Your task to perform on an android device: change text size in settings app Image 0: 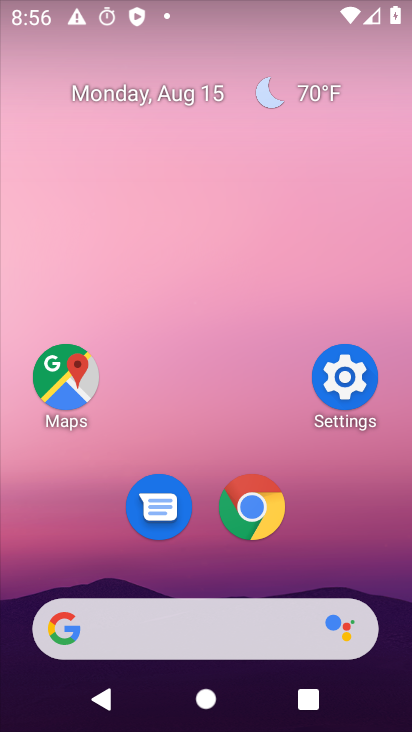
Step 0: click (356, 381)
Your task to perform on an android device: change text size in settings app Image 1: 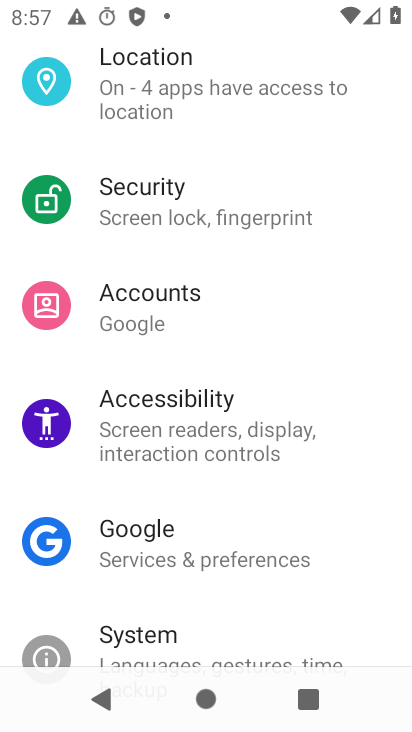
Step 1: drag from (282, 264) to (191, 636)
Your task to perform on an android device: change text size in settings app Image 2: 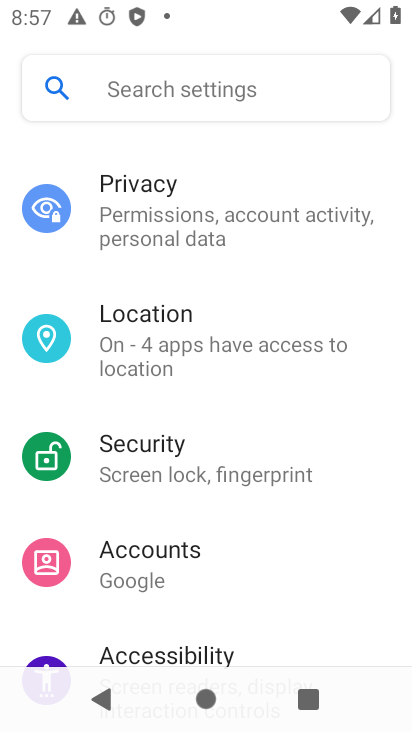
Step 2: drag from (305, 167) to (200, 630)
Your task to perform on an android device: change text size in settings app Image 3: 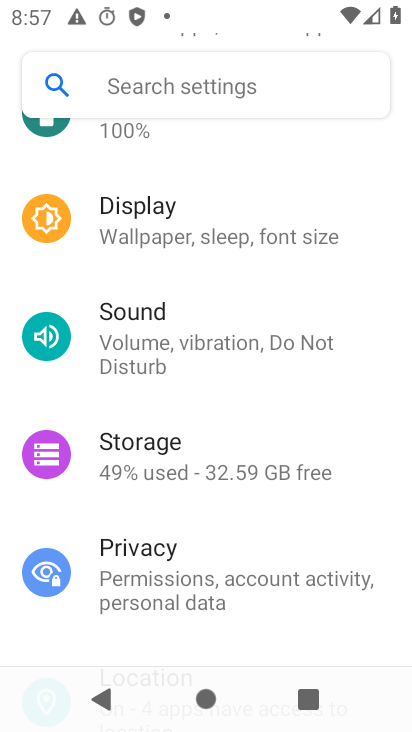
Step 3: drag from (280, 167) to (218, 561)
Your task to perform on an android device: change text size in settings app Image 4: 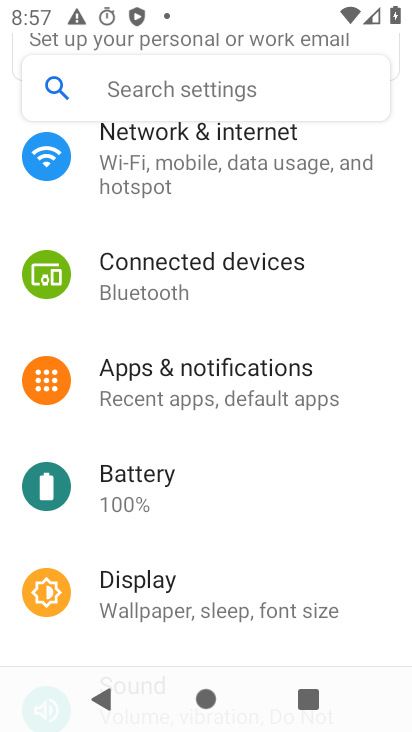
Step 4: click (209, 596)
Your task to perform on an android device: change text size in settings app Image 5: 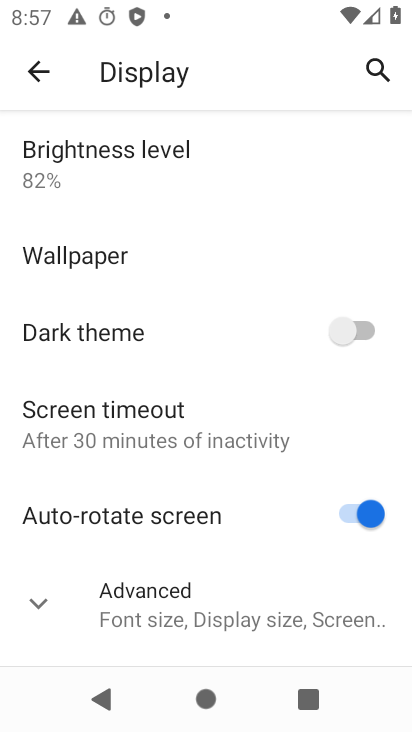
Step 5: drag from (247, 563) to (304, 105)
Your task to perform on an android device: change text size in settings app Image 6: 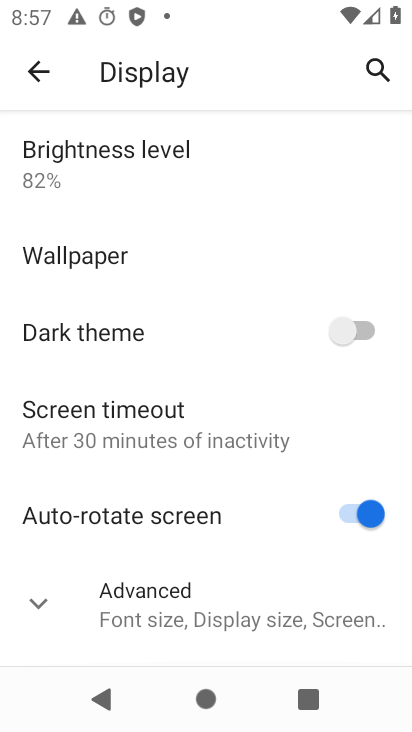
Step 6: click (165, 614)
Your task to perform on an android device: change text size in settings app Image 7: 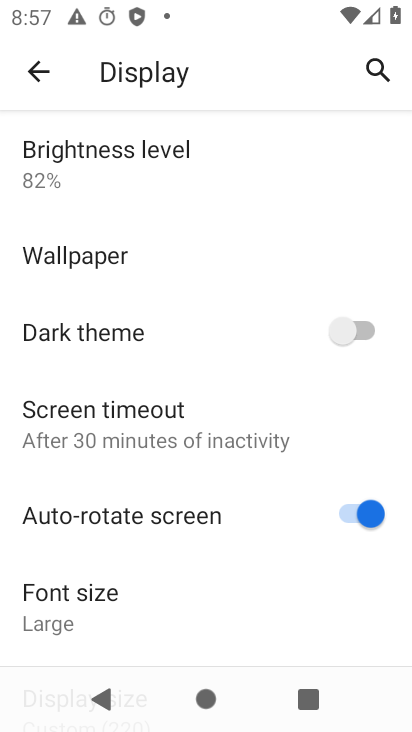
Step 7: drag from (180, 580) to (265, 266)
Your task to perform on an android device: change text size in settings app Image 8: 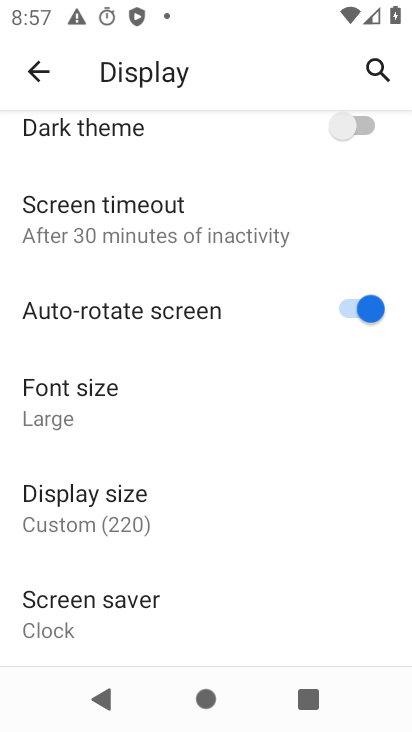
Step 8: click (70, 404)
Your task to perform on an android device: change text size in settings app Image 9: 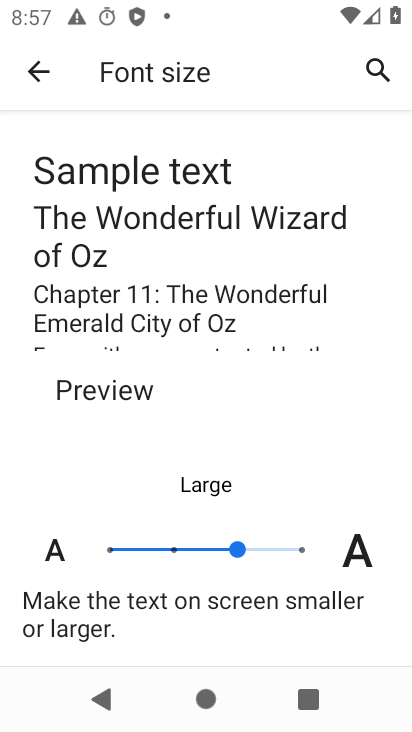
Step 9: click (176, 544)
Your task to perform on an android device: change text size in settings app Image 10: 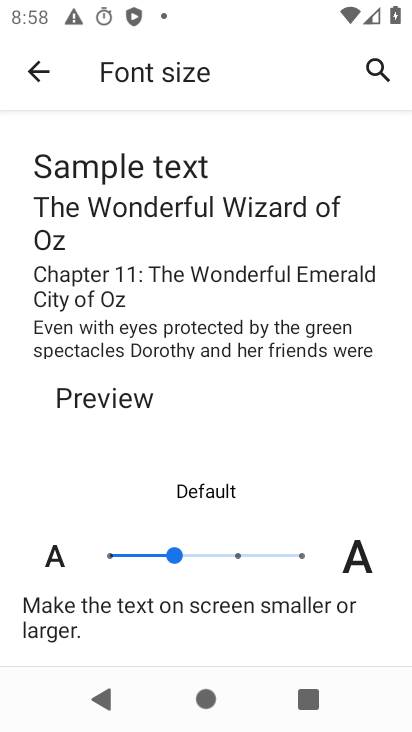
Step 10: task complete